Your task to perform on an android device: Open the map Image 0: 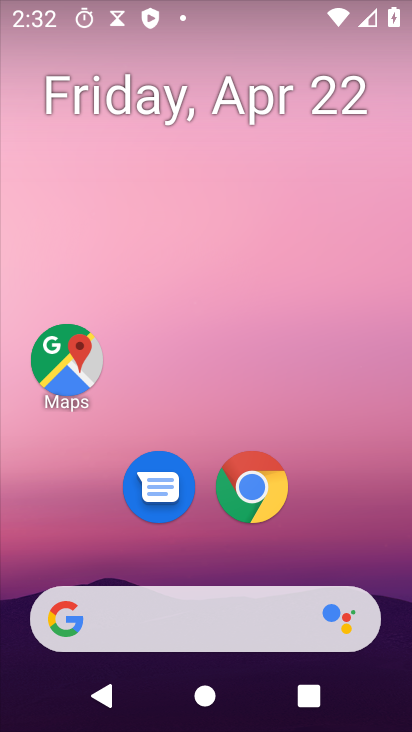
Step 0: drag from (217, 584) to (297, 198)
Your task to perform on an android device: Open the map Image 1: 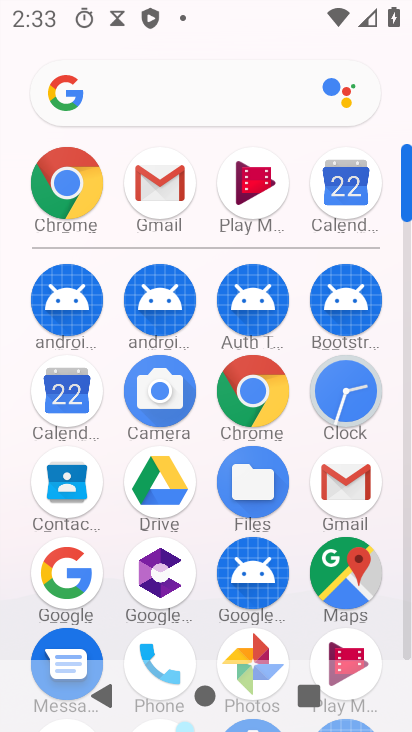
Step 1: click (345, 568)
Your task to perform on an android device: Open the map Image 2: 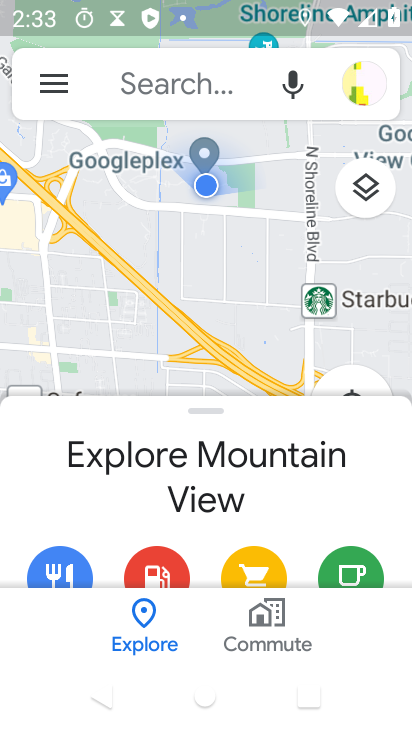
Step 2: task complete